Your task to perform on an android device: Is it going to rain today? Image 0: 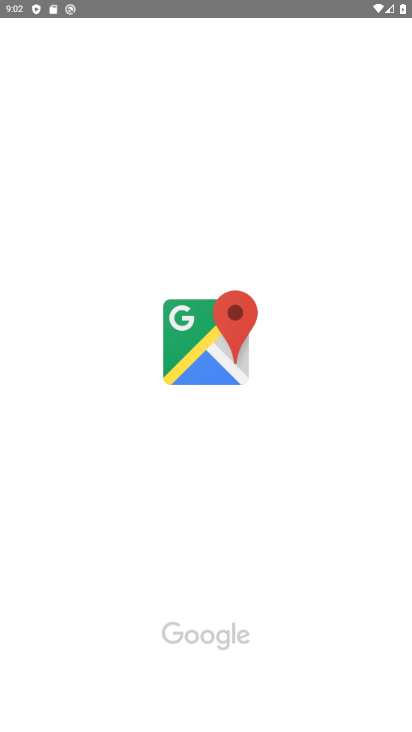
Step 0: press home button
Your task to perform on an android device: Is it going to rain today? Image 1: 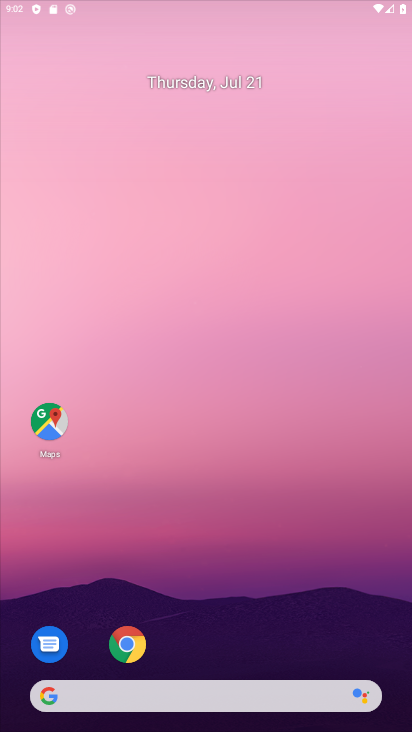
Step 1: drag from (258, 622) to (251, 6)
Your task to perform on an android device: Is it going to rain today? Image 2: 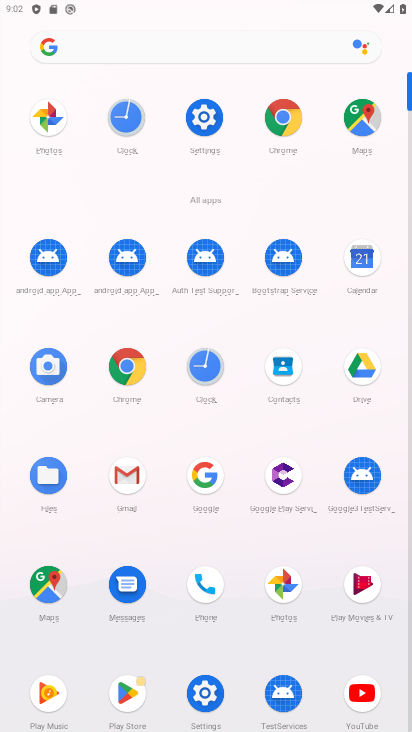
Step 2: click (208, 471)
Your task to perform on an android device: Is it going to rain today? Image 3: 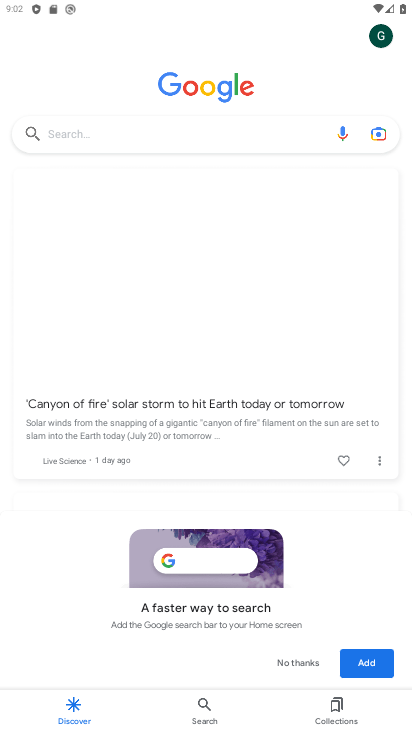
Step 3: click (130, 130)
Your task to perform on an android device: Is it going to rain today? Image 4: 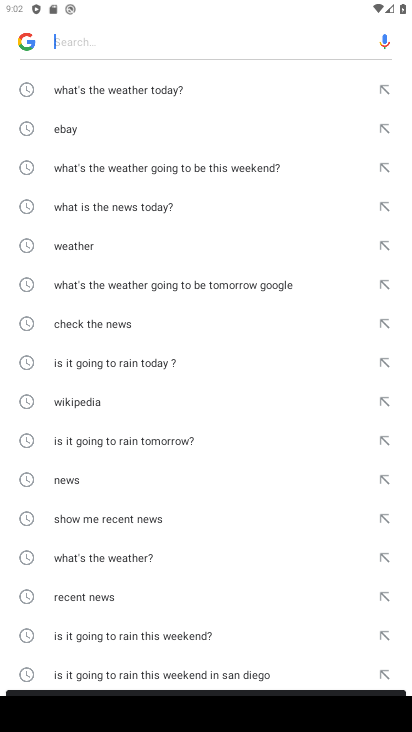
Step 4: click (75, 248)
Your task to perform on an android device: Is it going to rain today? Image 5: 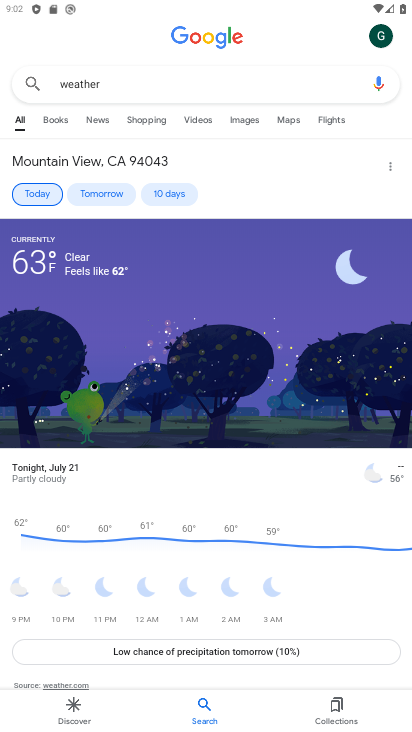
Step 5: task complete